Your task to perform on an android device: open app "Microsoft Authenticator" (install if not already installed) Image 0: 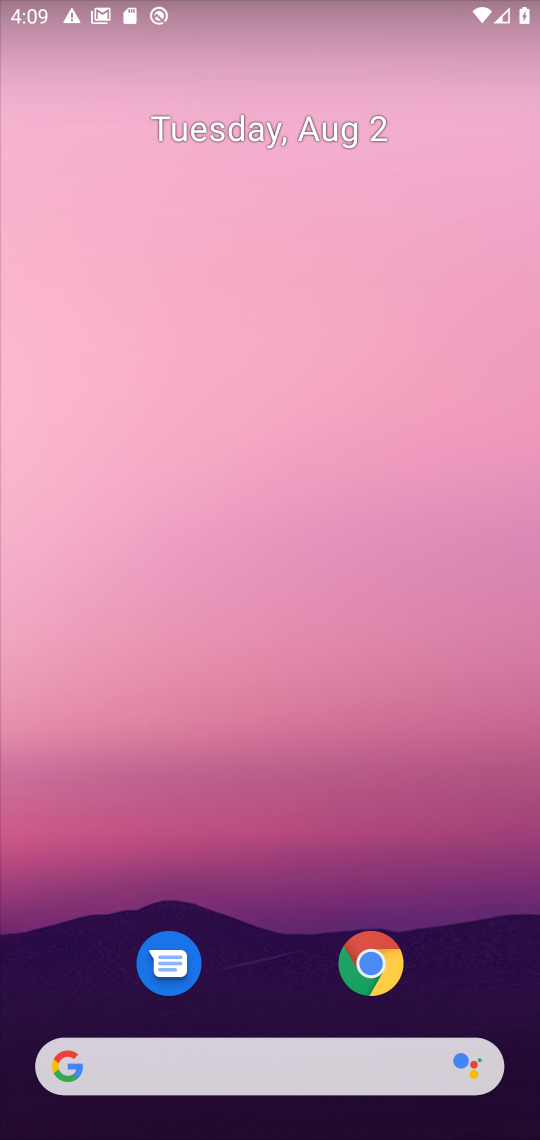
Step 0: drag from (205, 1048) to (0, 160)
Your task to perform on an android device: open app "Microsoft Authenticator" (install if not already installed) Image 1: 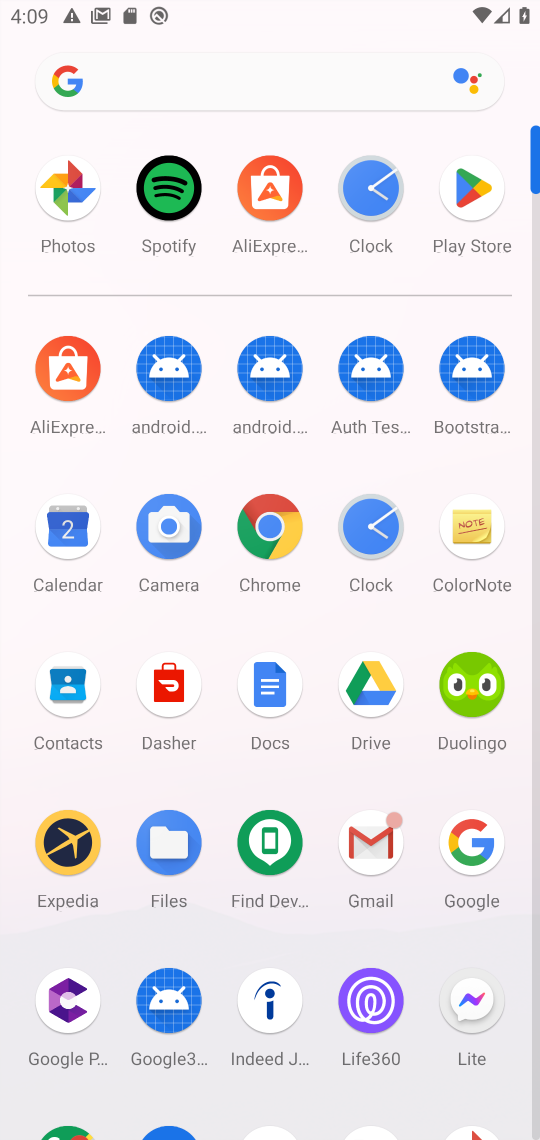
Step 1: click (474, 199)
Your task to perform on an android device: open app "Microsoft Authenticator" (install if not already installed) Image 2: 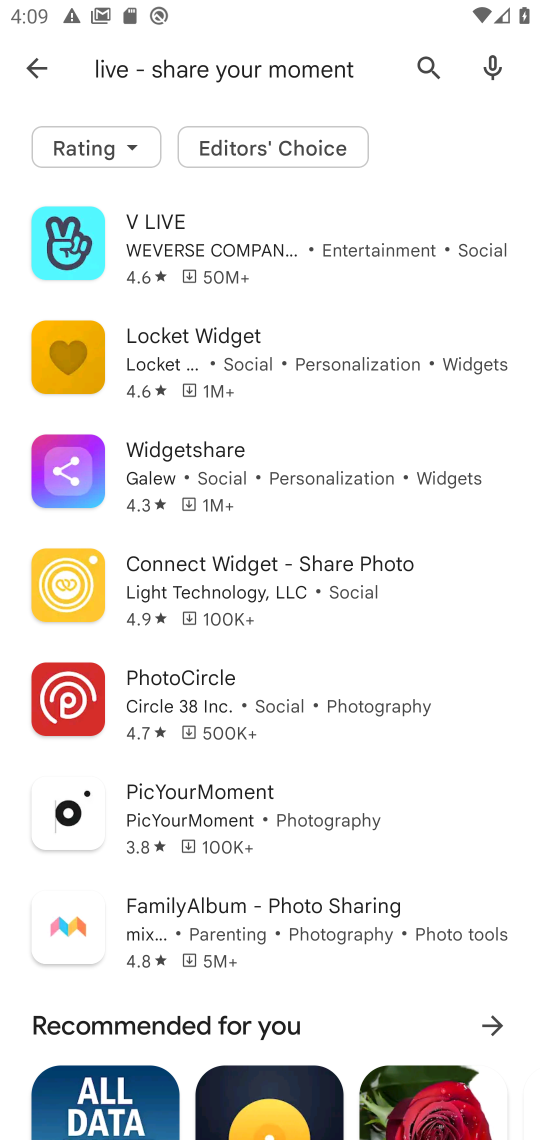
Step 2: click (422, 65)
Your task to perform on an android device: open app "Microsoft Authenticator" (install if not already installed) Image 3: 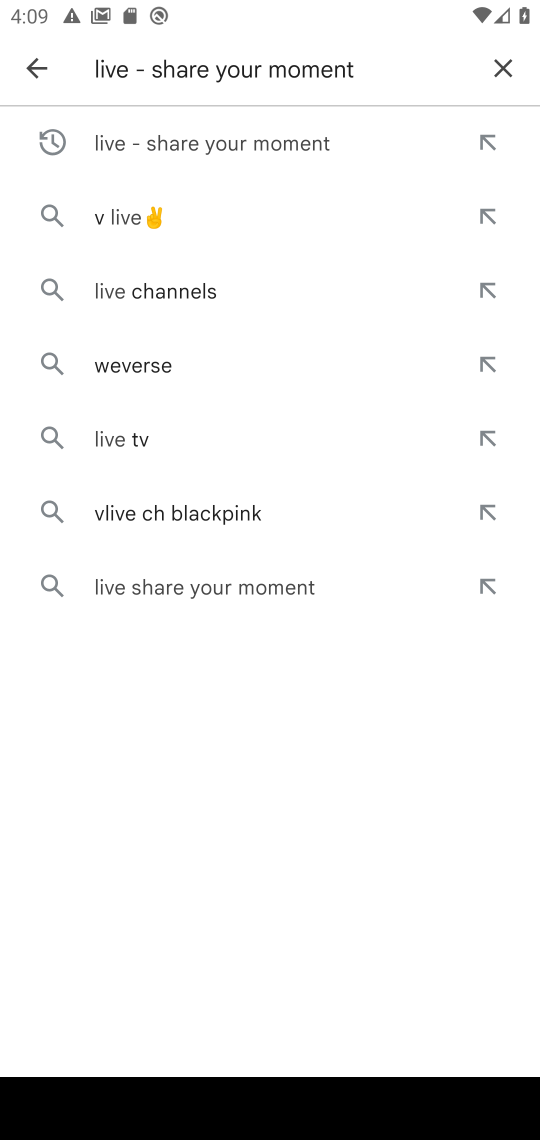
Step 3: click (500, 65)
Your task to perform on an android device: open app "Microsoft Authenticator" (install if not already installed) Image 4: 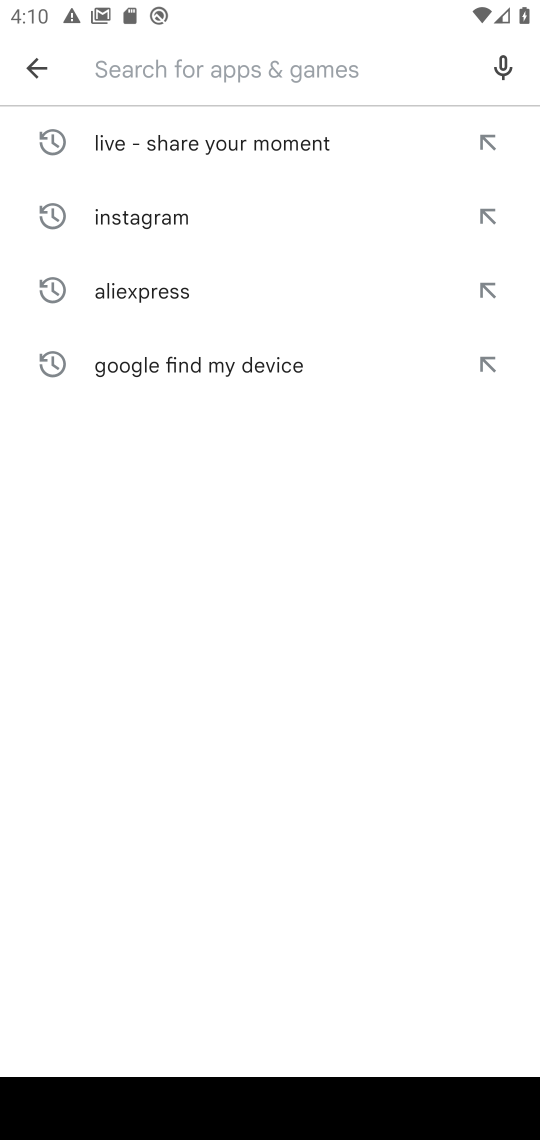
Step 4: type "Microsoft Authenticator"
Your task to perform on an android device: open app "Microsoft Authenticator" (install if not already installed) Image 5: 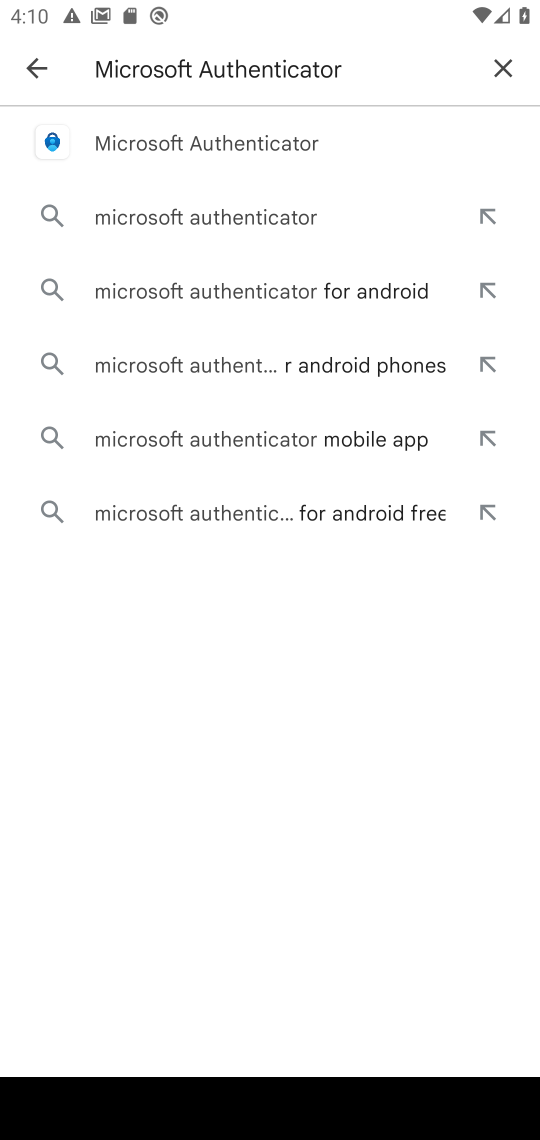
Step 5: click (179, 141)
Your task to perform on an android device: open app "Microsoft Authenticator" (install if not already installed) Image 6: 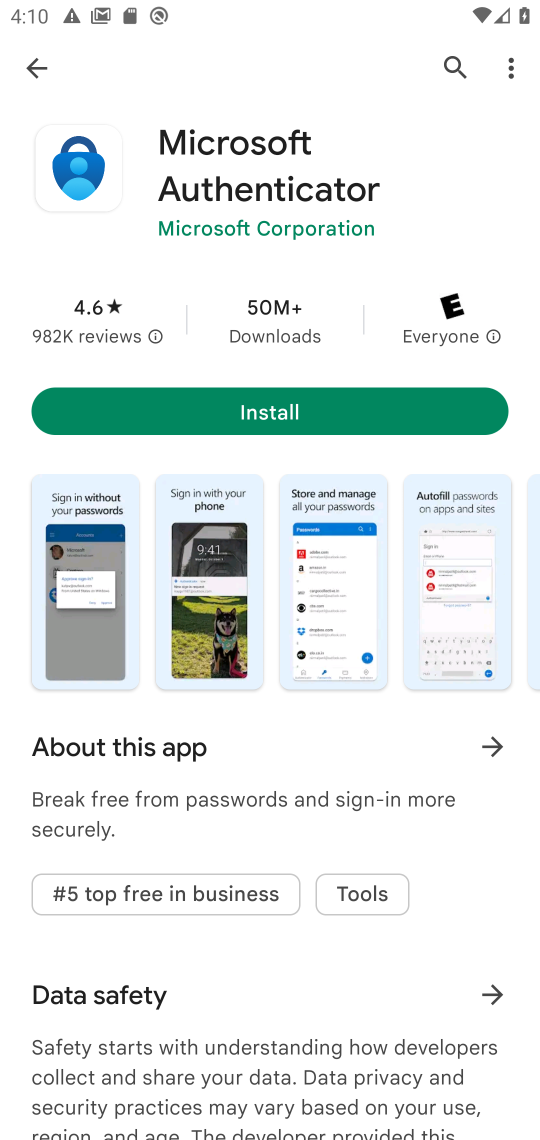
Step 6: click (258, 408)
Your task to perform on an android device: open app "Microsoft Authenticator" (install if not already installed) Image 7: 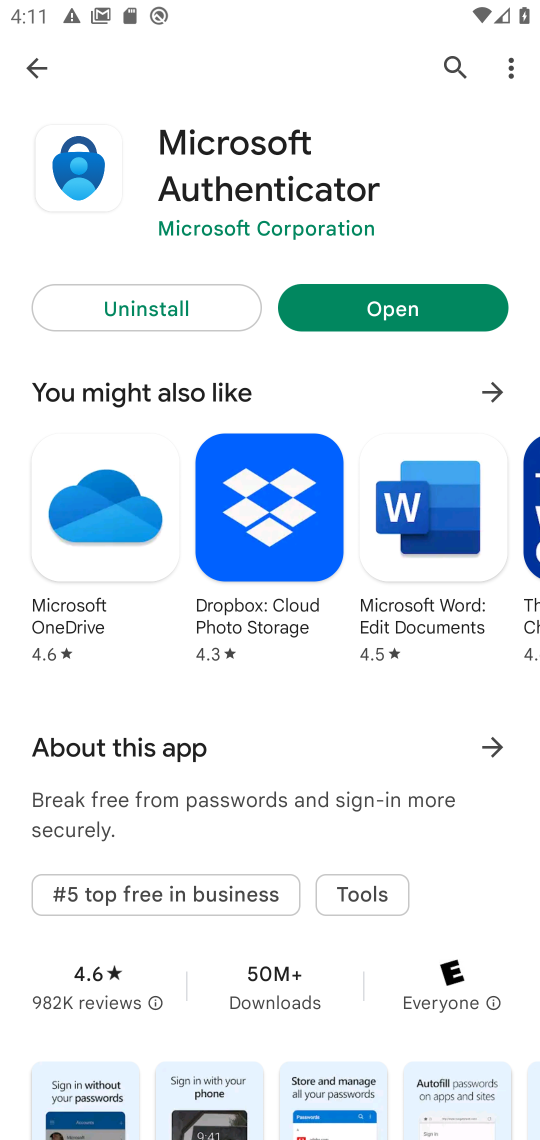
Step 7: click (400, 318)
Your task to perform on an android device: open app "Microsoft Authenticator" (install if not already installed) Image 8: 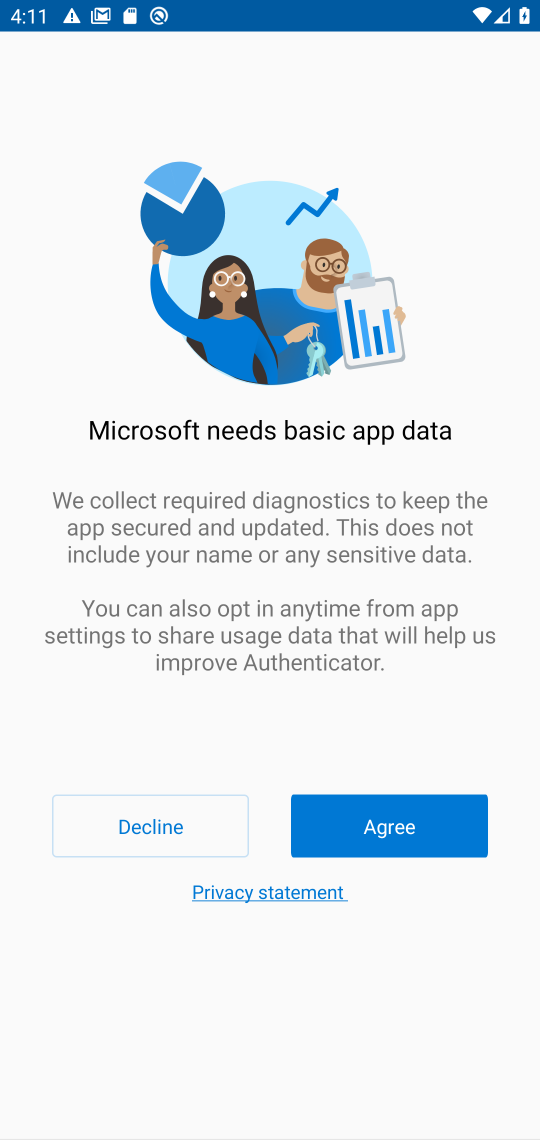
Step 8: click (159, 831)
Your task to perform on an android device: open app "Microsoft Authenticator" (install if not already installed) Image 9: 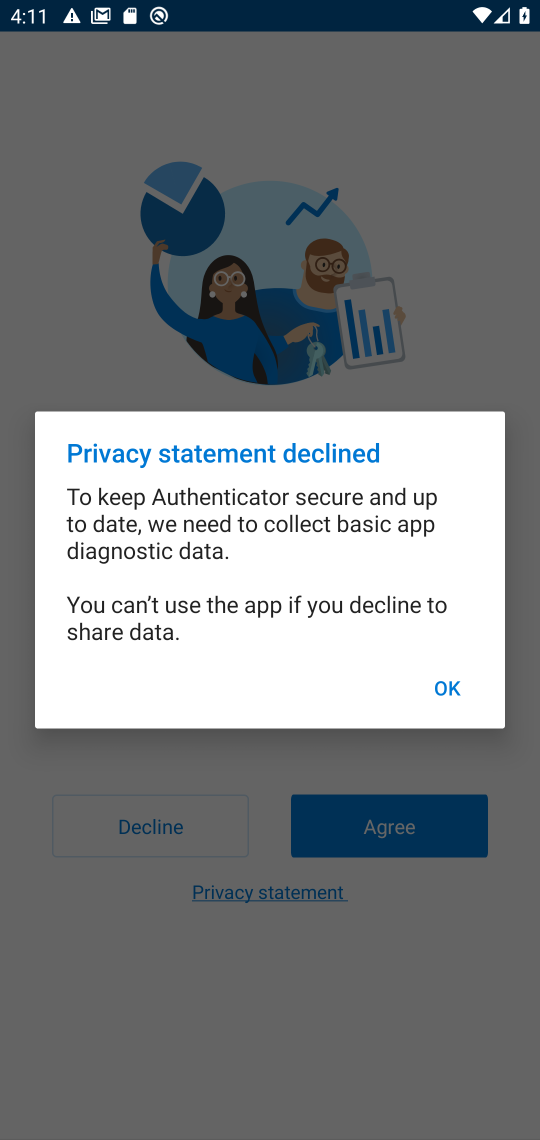
Step 9: click (460, 696)
Your task to perform on an android device: open app "Microsoft Authenticator" (install if not already installed) Image 10: 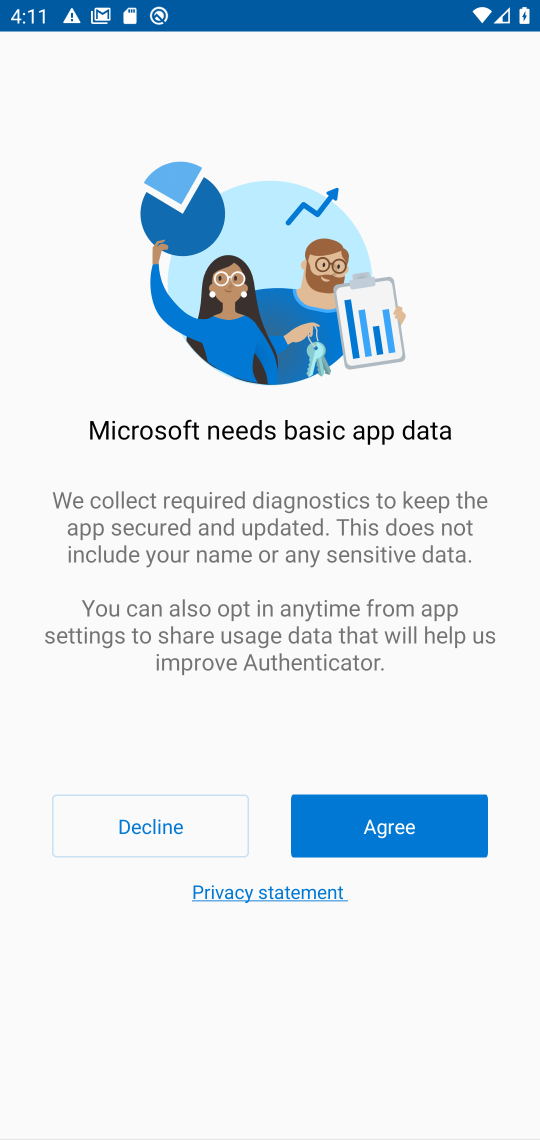
Step 10: task complete